Your task to perform on an android device: Open display settings Image 0: 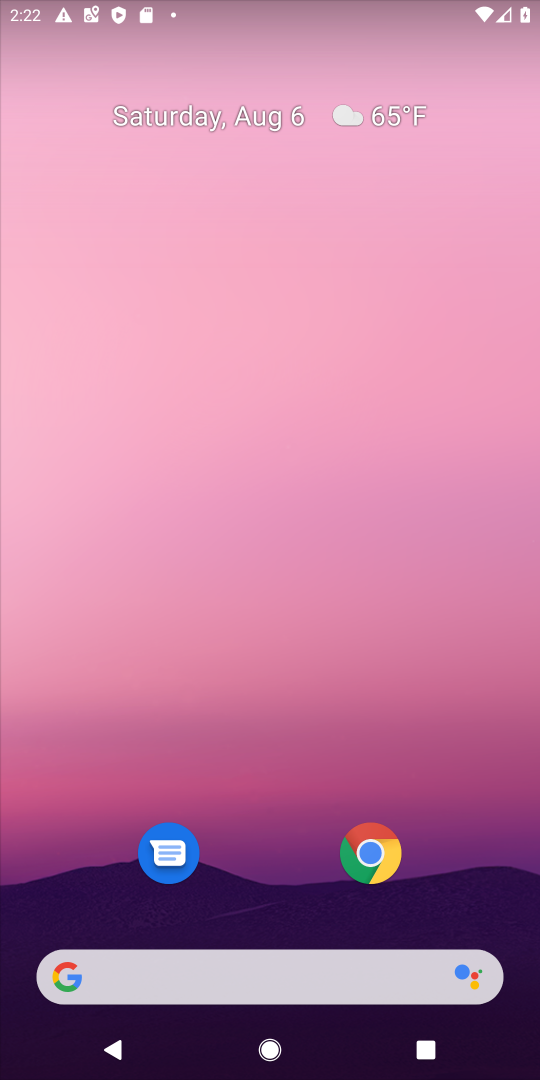
Step 0: drag from (291, 506) to (253, 0)
Your task to perform on an android device: Open display settings Image 1: 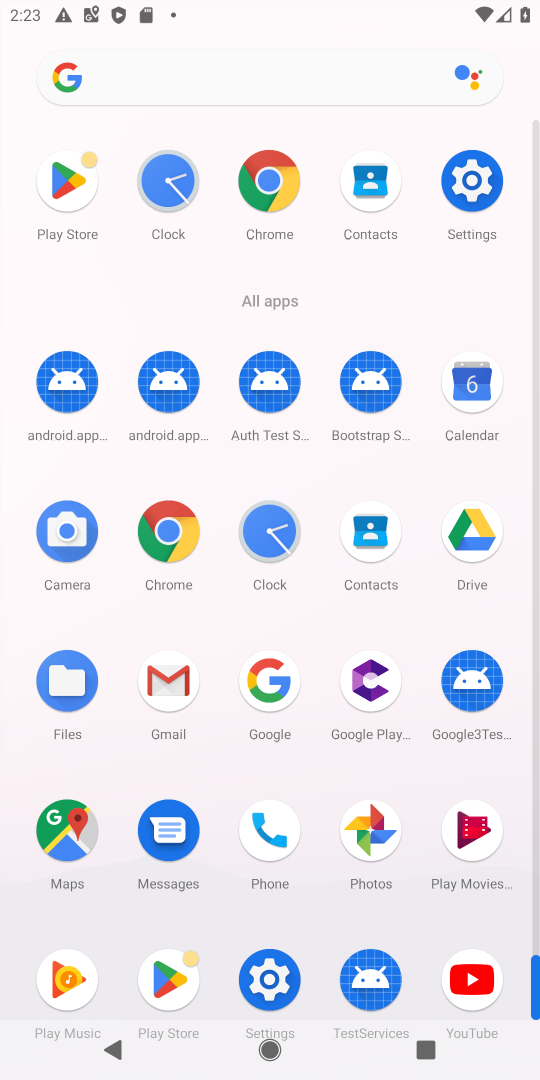
Step 1: click (483, 180)
Your task to perform on an android device: Open display settings Image 2: 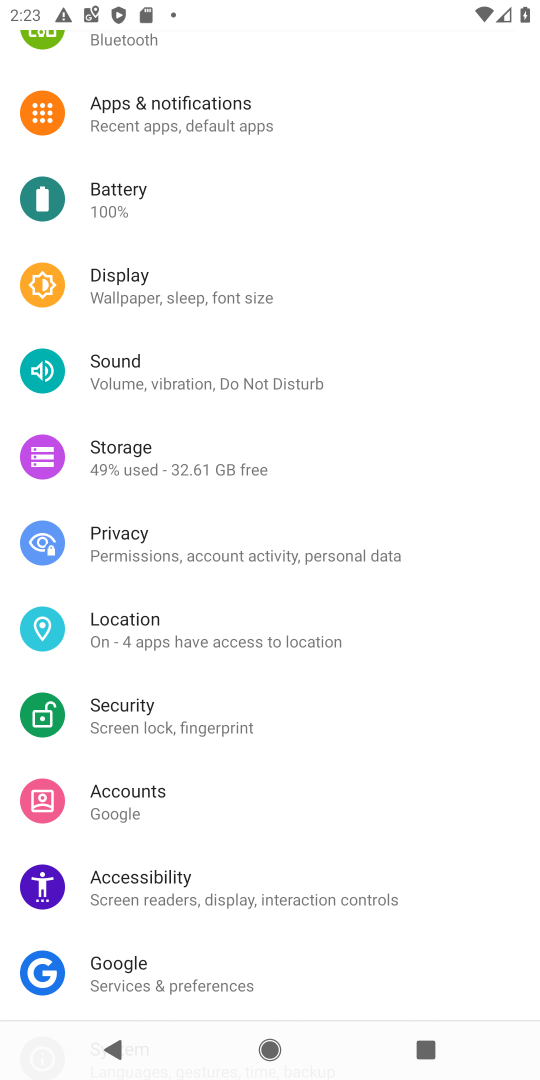
Step 2: click (123, 283)
Your task to perform on an android device: Open display settings Image 3: 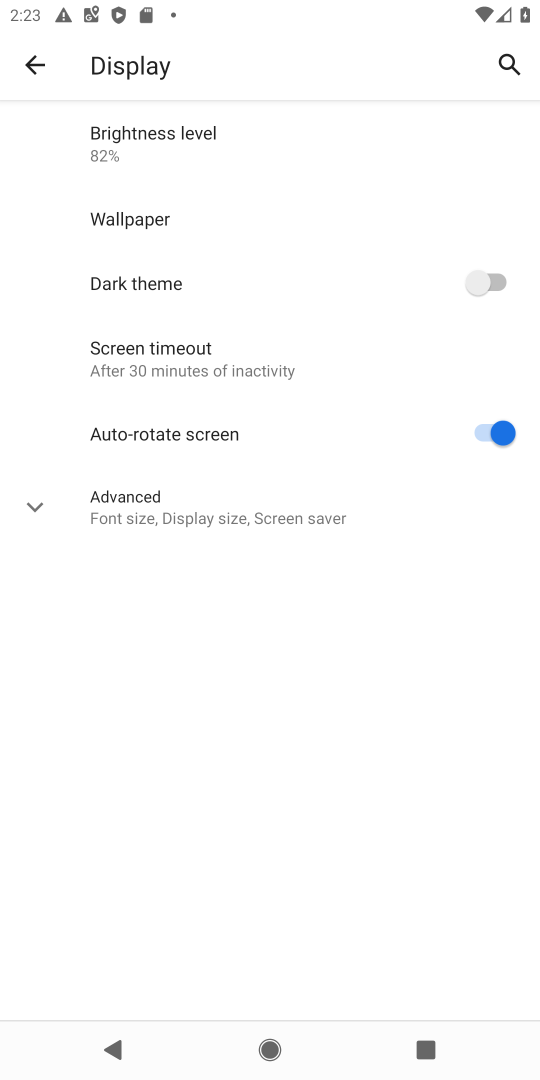
Step 3: task complete